Your task to perform on an android device: What's the weather today? Image 0: 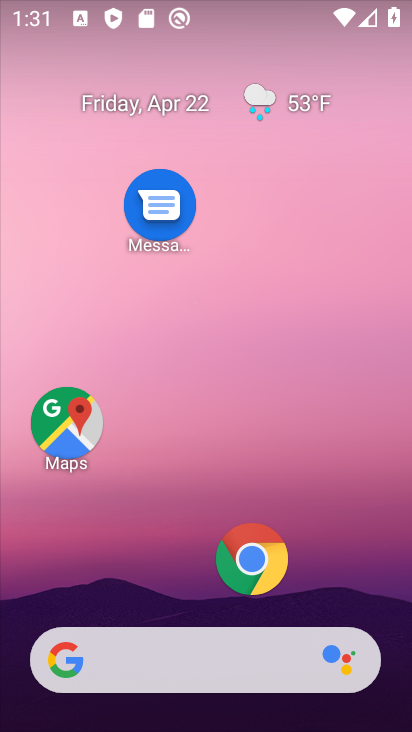
Step 0: drag from (170, 624) to (199, 240)
Your task to perform on an android device: What's the weather today? Image 1: 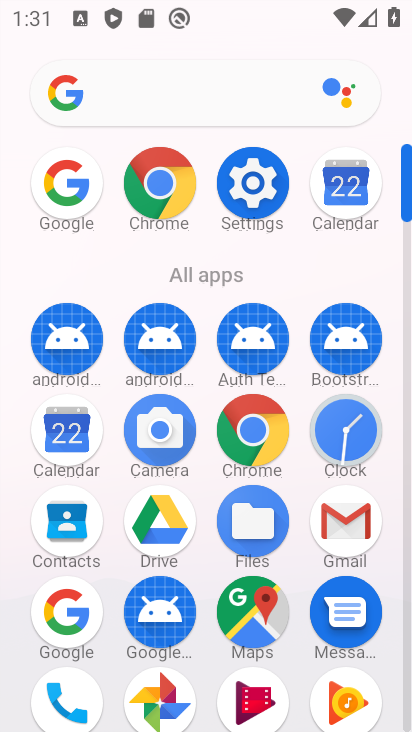
Step 1: click (70, 597)
Your task to perform on an android device: What's the weather today? Image 2: 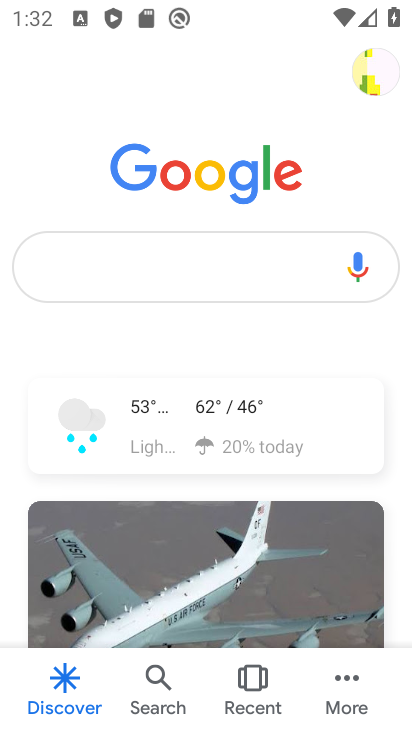
Step 2: click (176, 441)
Your task to perform on an android device: What's the weather today? Image 3: 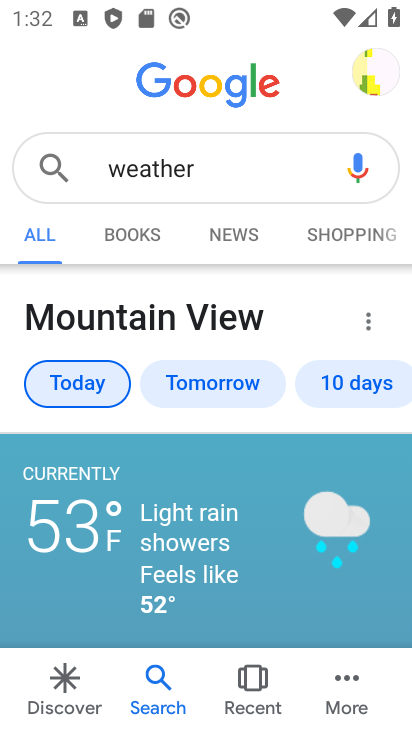
Step 3: task complete